Your task to perform on an android device: turn on improve location accuracy Image 0: 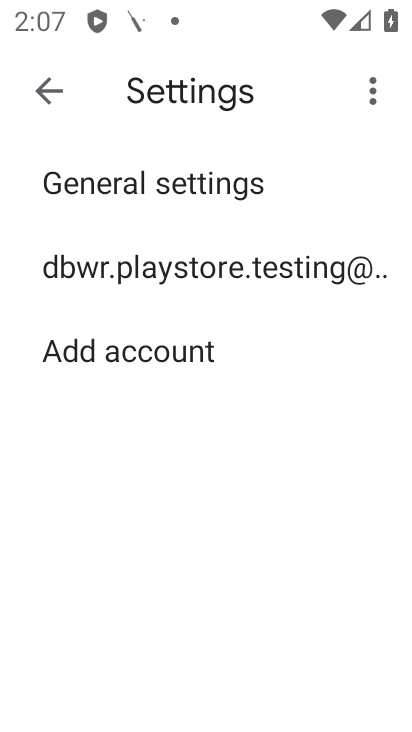
Step 0: press home button
Your task to perform on an android device: turn on improve location accuracy Image 1: 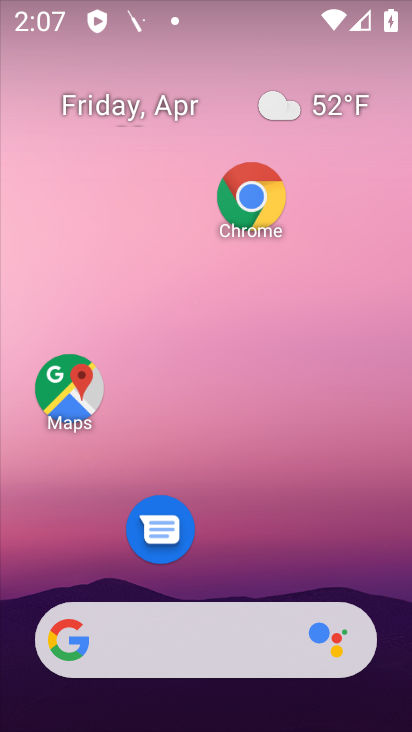
Step 1: drag from (222, 575) to (247, 158)
Your task to perform on an android device: turn on improve location accuracy Image 2: 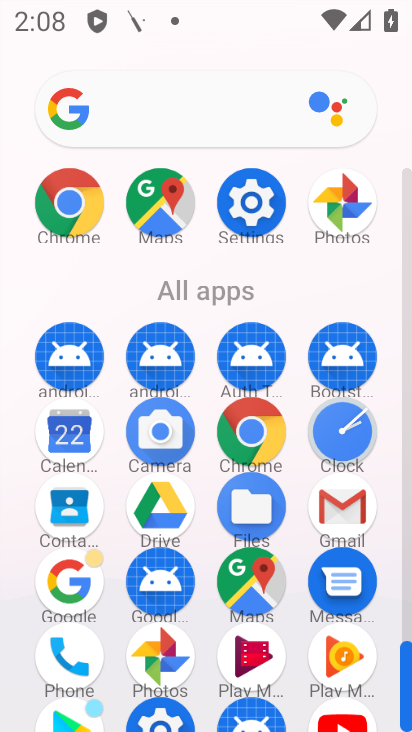
Step 2: click (238, 213)
Your task to perform on an android device: turn on improve location accuracy Image 3: 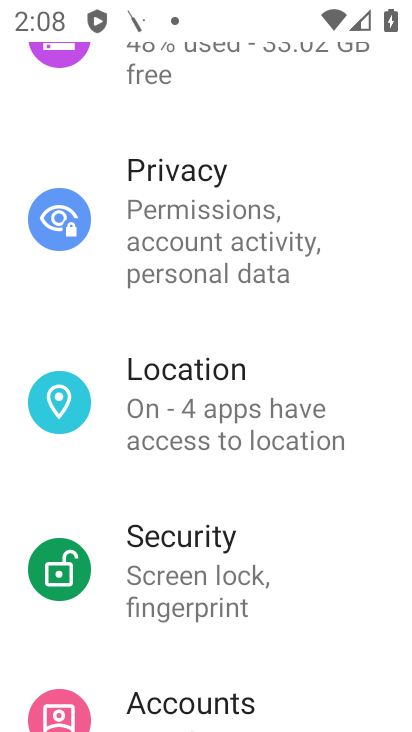
Step 3: click (187, 417)
Your task to perform on an android device: turn on improve location accuracy Image 4: 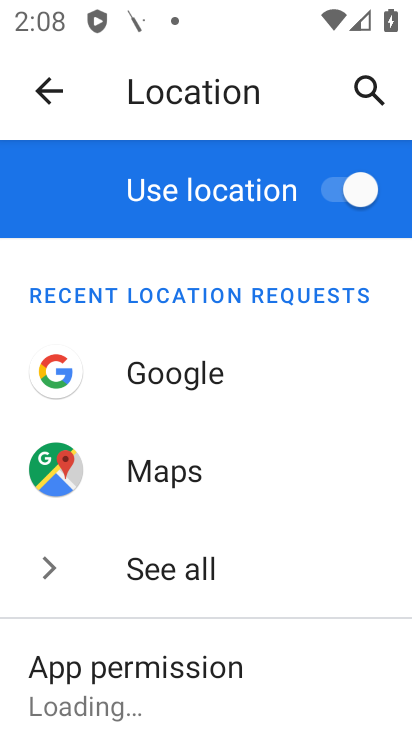
Step 4: drag from (239, 584) to (239, 315)
Your task to perform on an android device: turn on improve location accuracy Image 5: 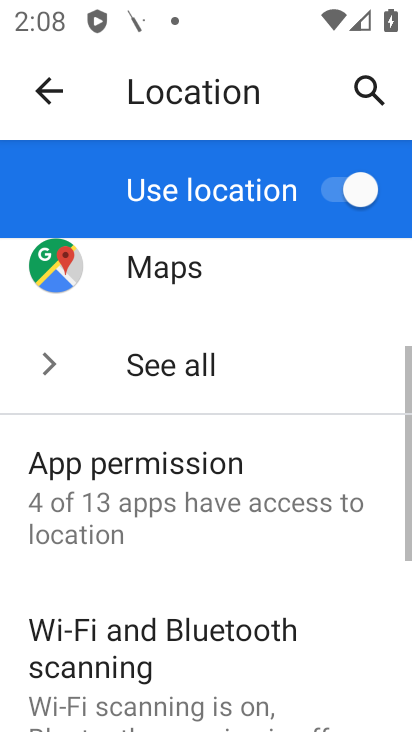
Step 5: drag from (249, 519) to (273, 314)
Your task to perform on an android device: turn on improve location accuracy Image 6: 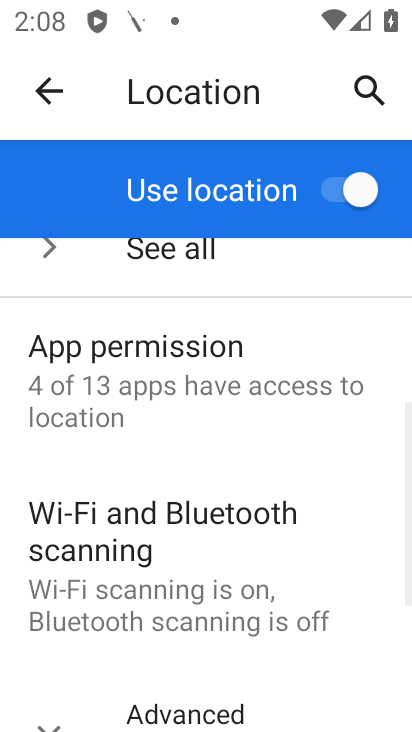
Step 6: drag from (263, 540) to (277, 362)
Your task to perform on an android device: turn on improve location accuracy Image 7: 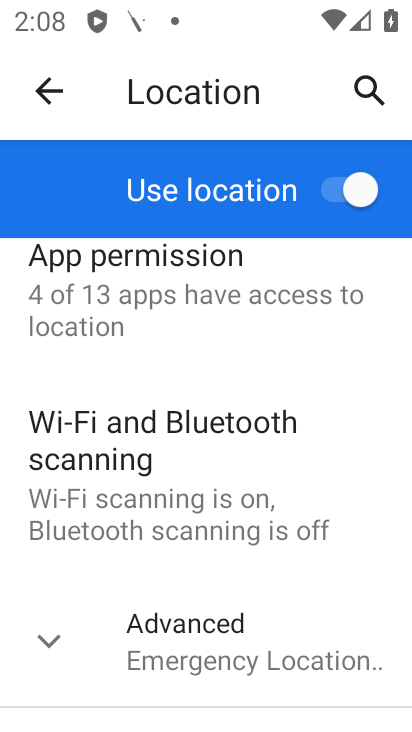
Step 7: click (211, 628)
Your task to perform on an android device: turn on improve location accuracy Image 8: 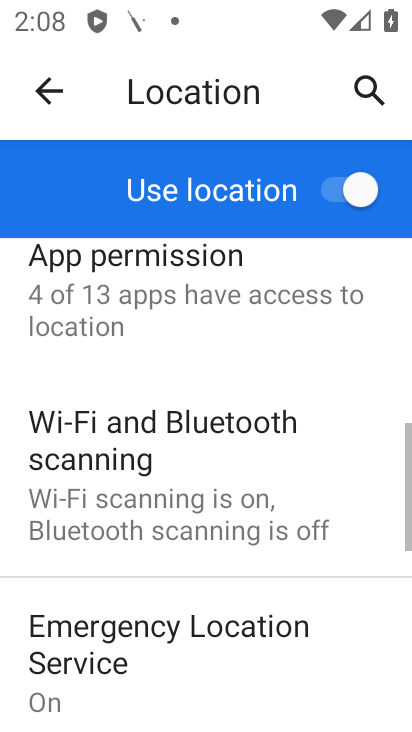
Step 8: drag from (240, 640) to (274, 343)
Your task to perform on an android device: turn on improve location accuracy Image 9: 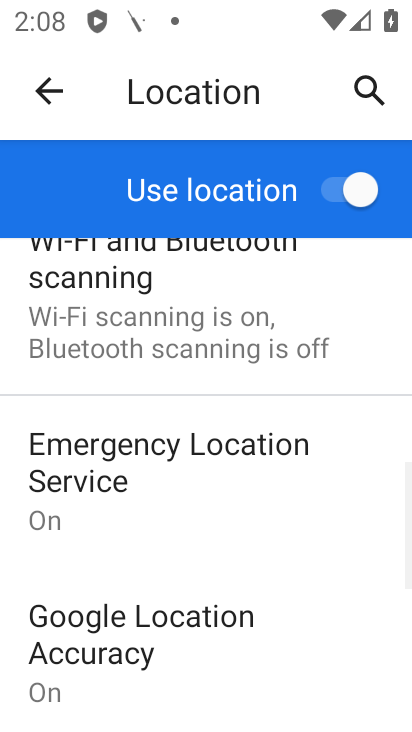
Step 9: drag from (217, 605) to (252, 388)
Your task to perform on an android device: turn on improve location accuracy Image 10: 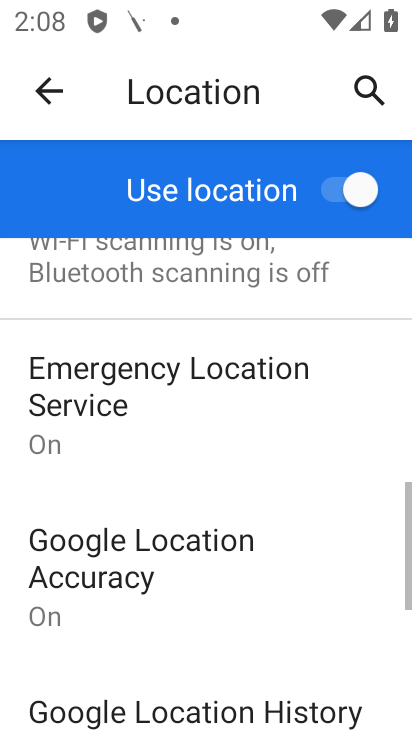
Step 10: click (196, 569)
Your task to perform on an android device: turn on improve location accuracy Image 11: 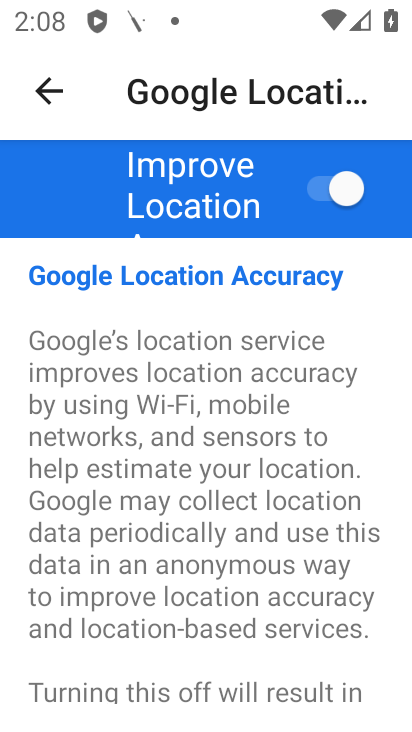
Step 11: task complete